Your task to perform on an android device: move an email to a new category in the gmail app Image 0: 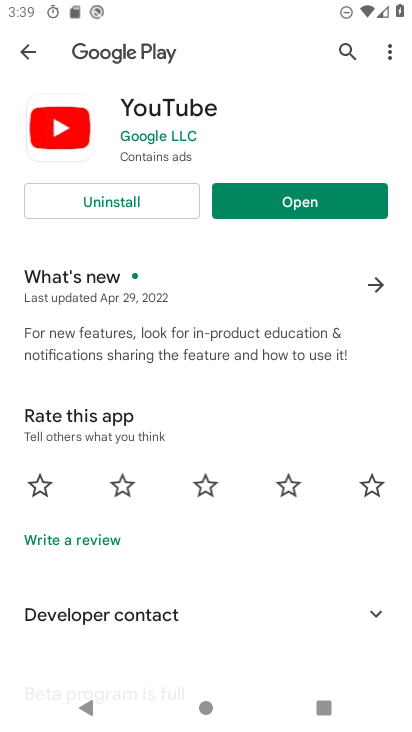
Step 0: press home button
Your task to perform on an android device: move an email to a new category in the gmail app Image 1: 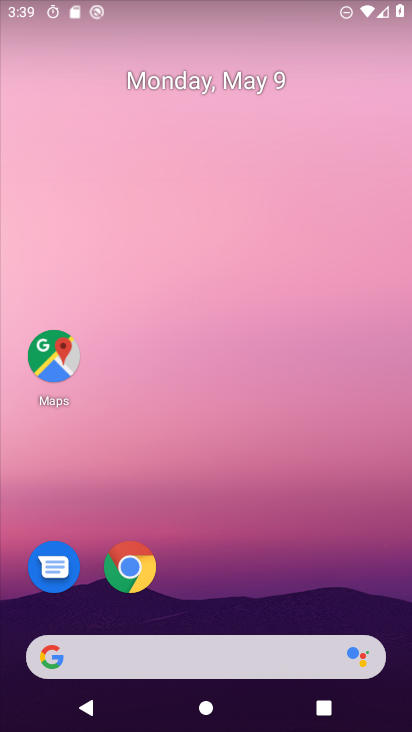
Step 1: drag from (232, 409) to (248, 120)
Your task to perform on an android device: move an email to a new category in the gmail app Image 2: 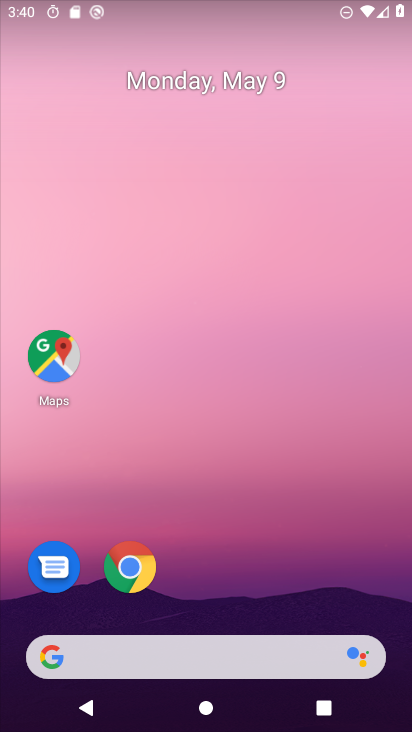
Step 2: drag from (228, 584) to (233, 56)
Your task to perform on an android device: move an email to a new category in the gmail app Image 3: 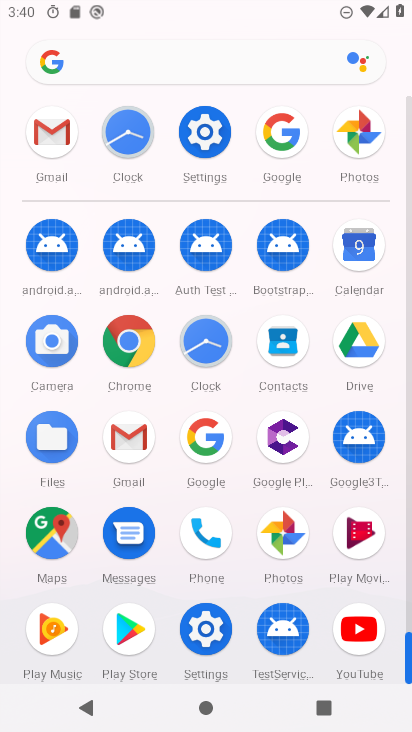
Step 3: click (46, 127)
Your task to perform on an android device: move an email to a new category in the gmail app Image 4: 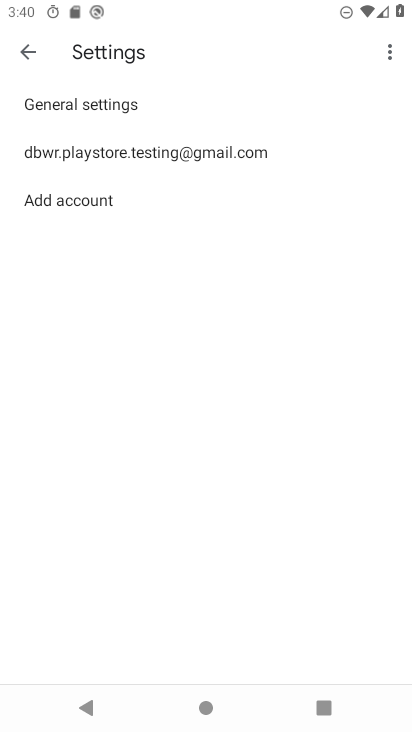
Step 4: click (34, 55)
Your task to perform on an android device: move an email to a new category in the gmail app Image 5: 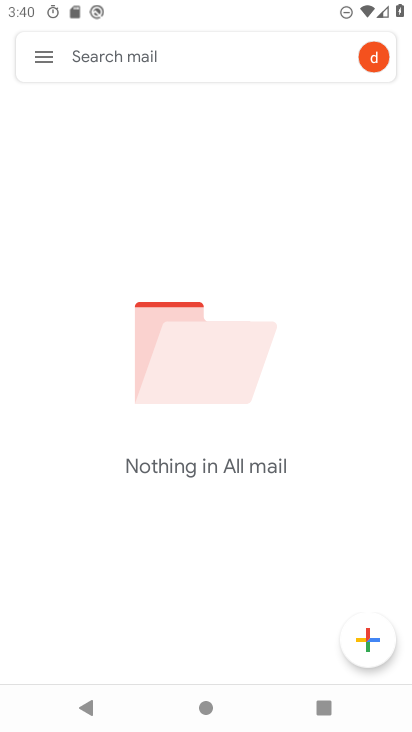
Step 5: click (34, 55)
Your task to perform on an android device: move an email to a new category in the gmail app Image 6: 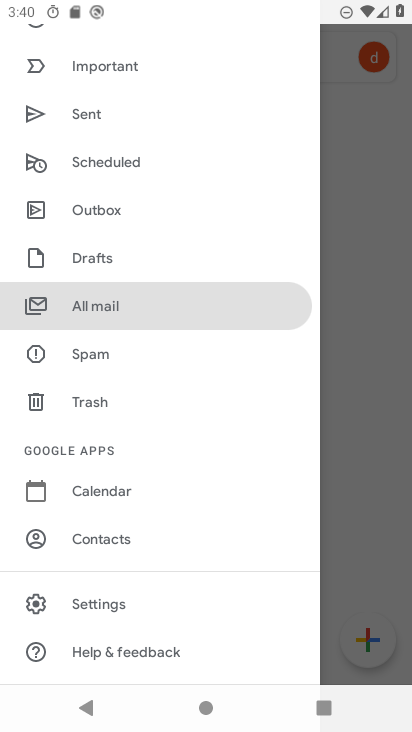
Step 6: drag from (161, 175) to (182, 592)
Your task to perform on an android device: move an email to a new category in the gmail app Image 7: 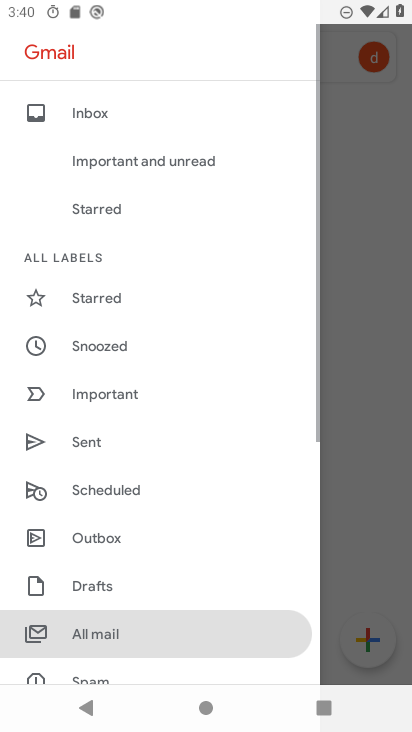
Step 7: click (113, 115)
Your task to perform on an android device: move an email to a new category in the gmail app Image 8: 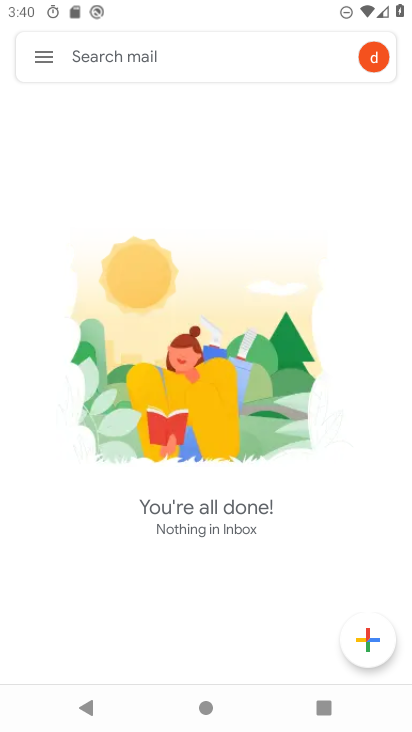
Step 8: task complete